Your task to perform on an android device: Open Chrome and go to settings Image 0: 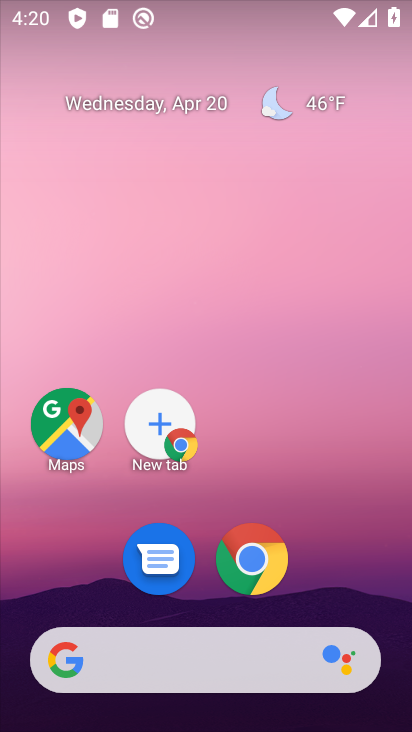
Step 0: drag from (309, 602) to (314, 295)
Your task to perform on an android device: Open Chrome and go to settings Image 1: 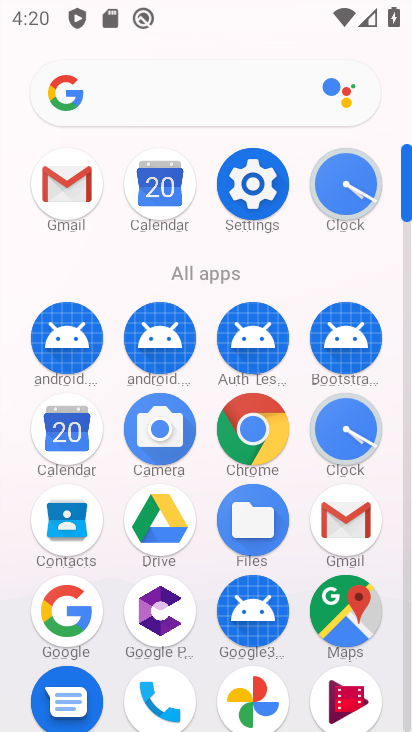
Step 1: click (266, 462)
Your task to perform on an android device: Open Chrome and go to settings Image 2: 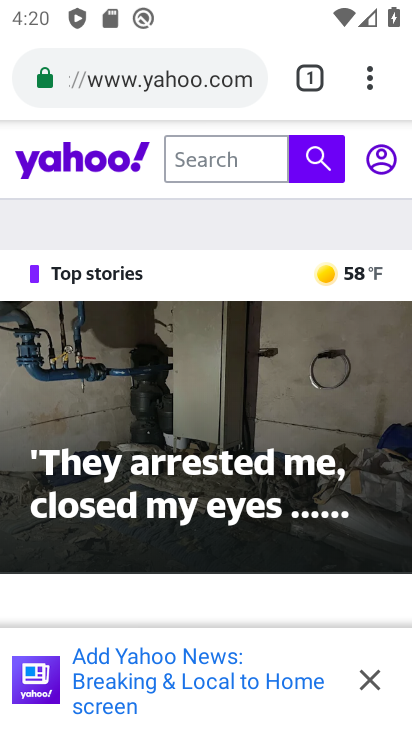
Step 2: click (351, 88)
Your task to perform on an android device: Open Chrome and go to settings Image 3: 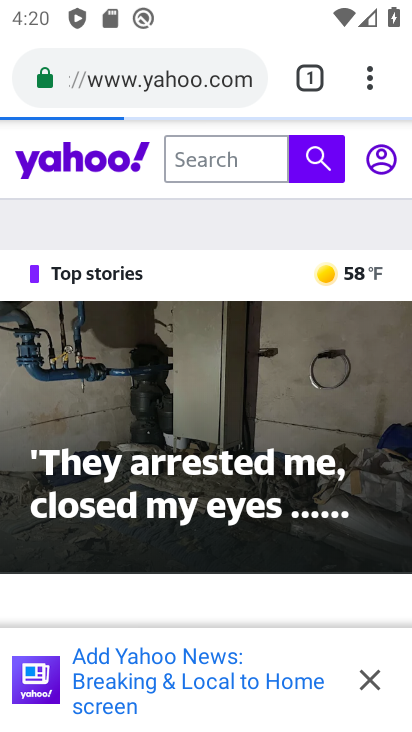
Step 3: click (384, 87)
Your task to perform on an android device: Open Chrome and go to settings Image 4: 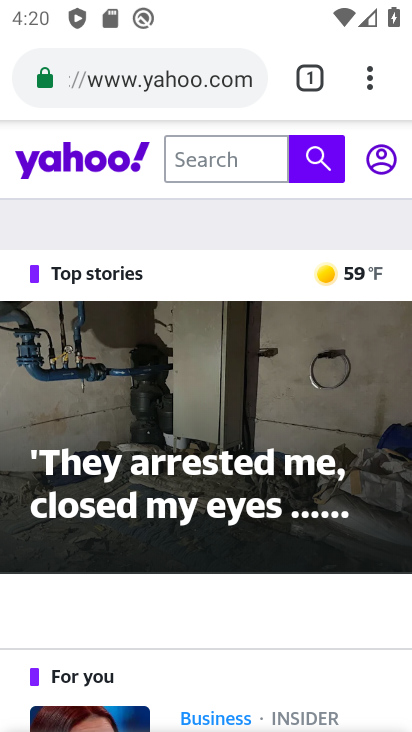
Step 4: click (368, 100)
Your task to perform on an android device: Open Chrome and go to settings Image 5: 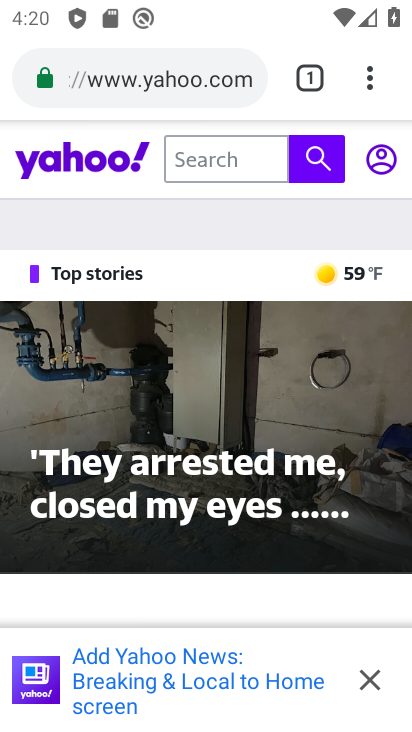
Step 5: click (370, 96)
Your task to perform on an android device: Open Chrome and go to settings Image 6: 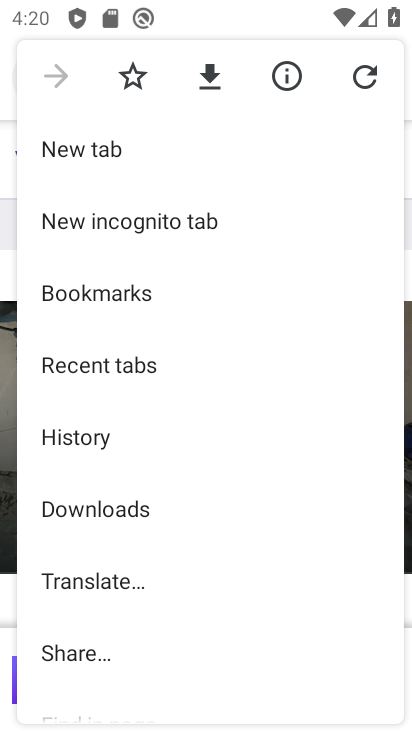
Step 6: drag from (182, 654) to (218, 347)
Your task to perform on an android device: Open Chrome and go to settings Image 7: 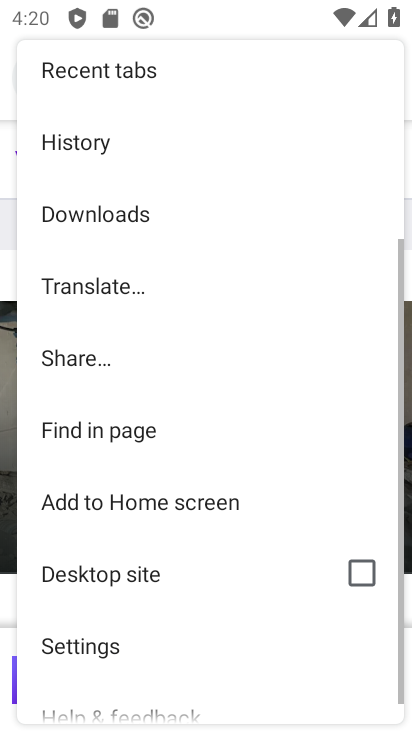
Step 7: click (146, 634)
Your task to perform on an android device: Open Chrome and go to settings Image 8: 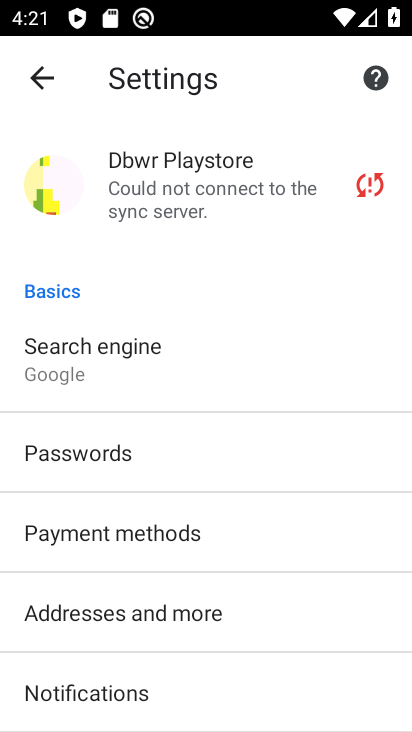
Step 8: task complete